Your task to perform on an android device: What is the news today? Image 0: 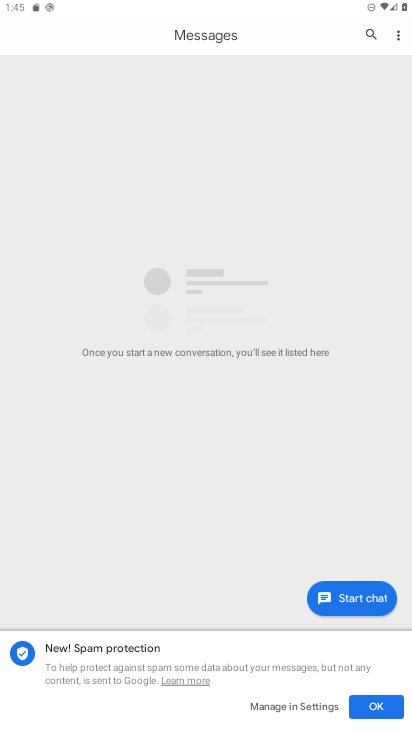
Step 0: press home button
Your task to perform on an android device: What is the news today? Image 1: 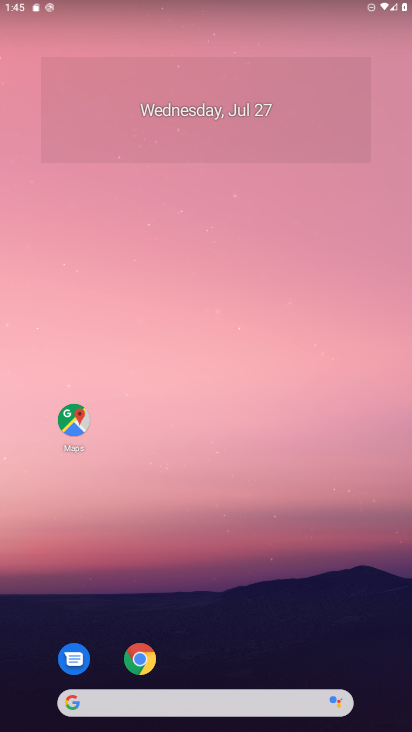
Step 1: drag from (249, 535) to (237, 89)
Your task to perform on an android device: What is the news today? Image 2: 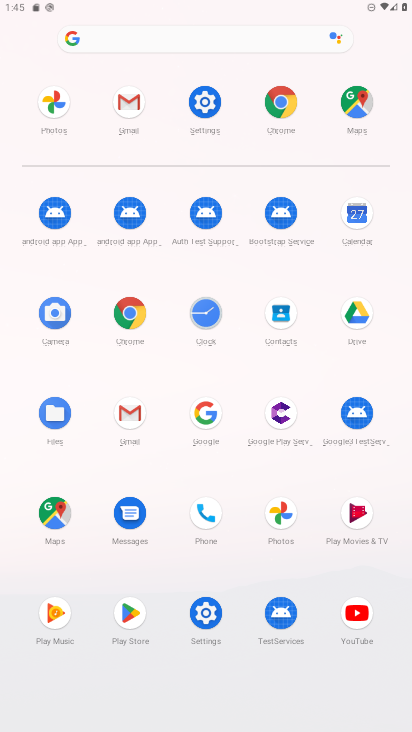
Step 2: click (285, 103)
Your task to perform on an android device: What is the news today? Image 3: 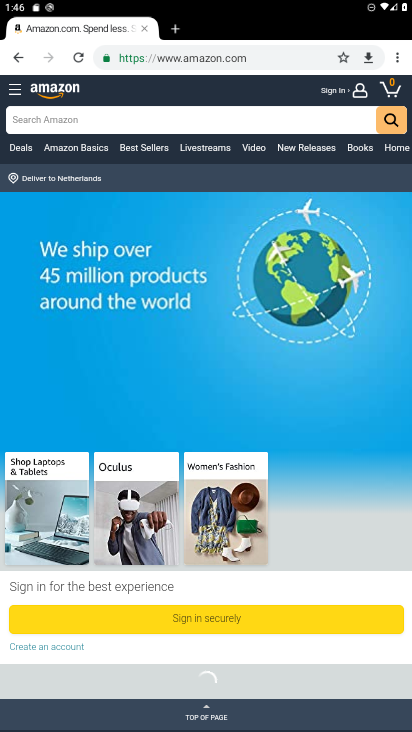
Step 3: click (245, 57)
Your task to perform on an android device: What is the news today? Image 4: 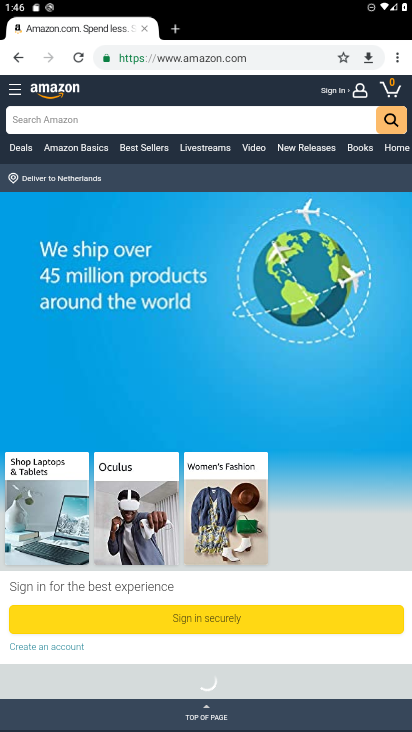
Step 4: click (266, 59)
Your task to perform on an android device: What is the news today? Image 5: 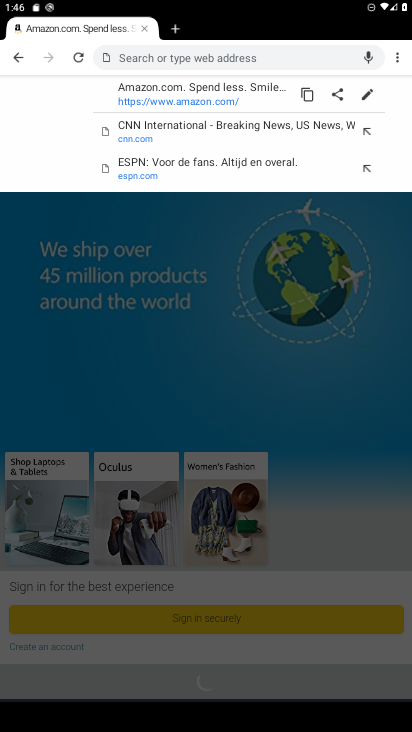
Step 5: type "news"
Your task to perform on an android device: What is the news today? Image 6: 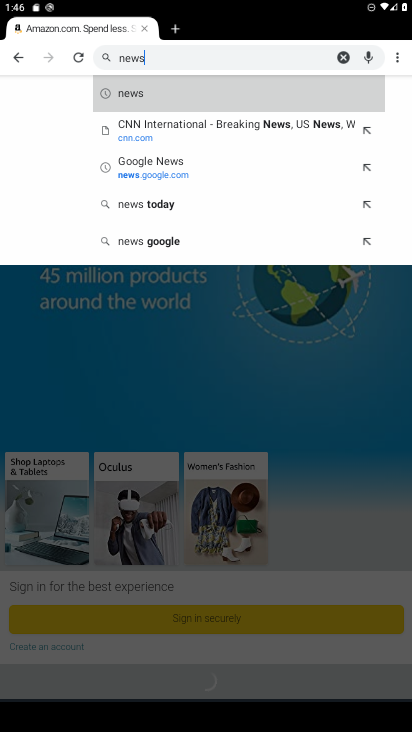
Step 6: click (157, 96)
Your task to perform on an android device: What is the news today? Image 7: 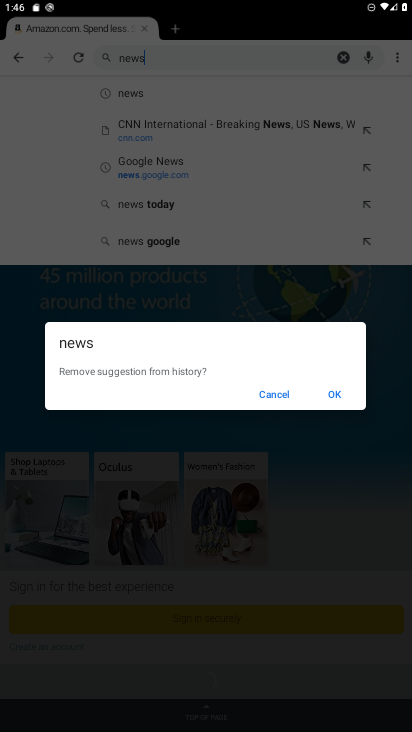
Step 7: click (271, 391)
Your task to perform on an android device: What is the news today? Image 8: 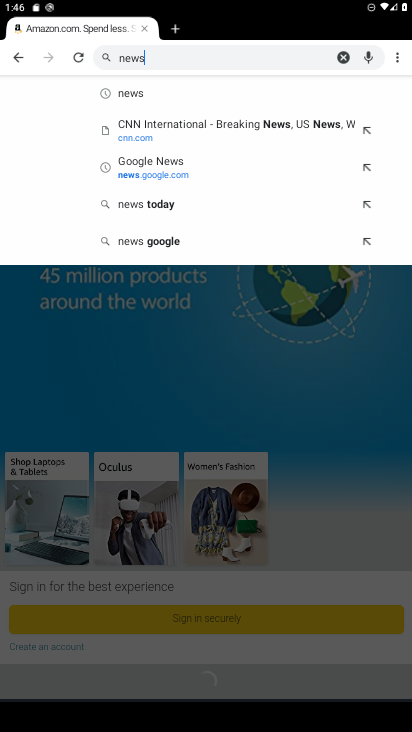
Step 8: click (129, 96)
Your task to perform on an android device: What is the news today? Image 9: 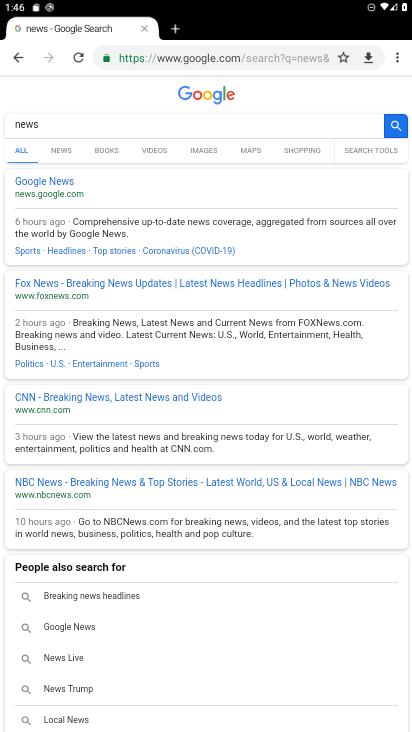
Step 9: click (38, 181)
Your task to perform on an android device: What is the news today? Image 10: 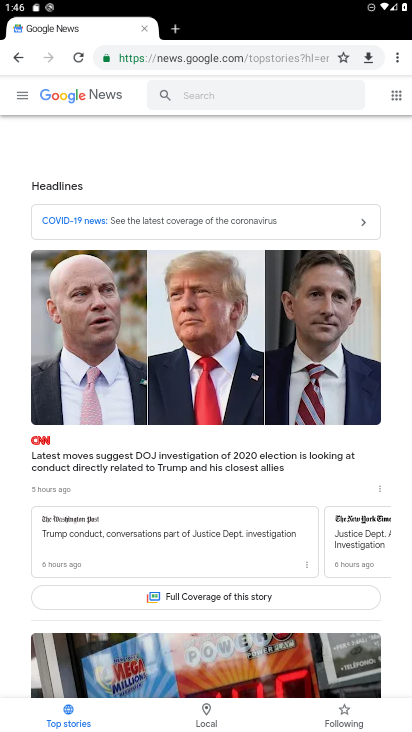
Step 10: task complete